Your task to perform on an android device: Go to Google maps Image 0: 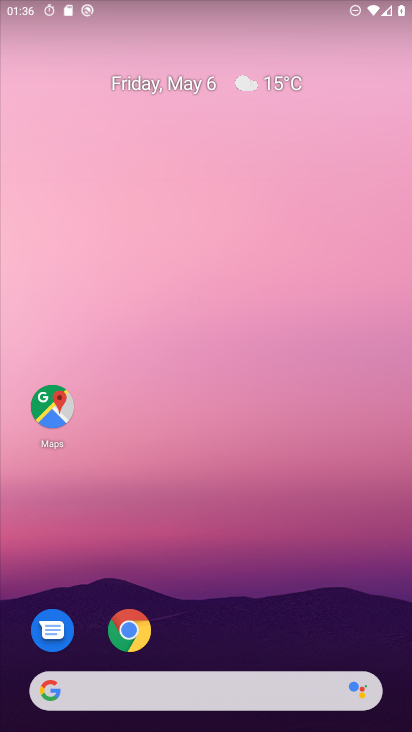
Step 0: drag from (303, 602) to (154, 123)
Your task to perform on an android device: Go to Google maps Image 1: 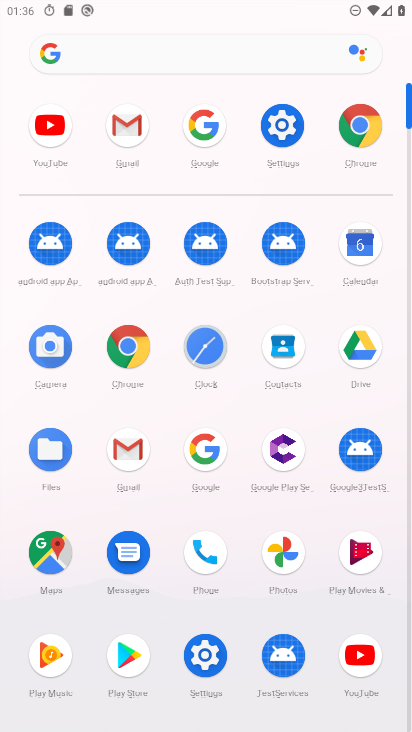
Step 1: click (48, 562)
Your task to perform on an android device: Go to Google maps Image 2: 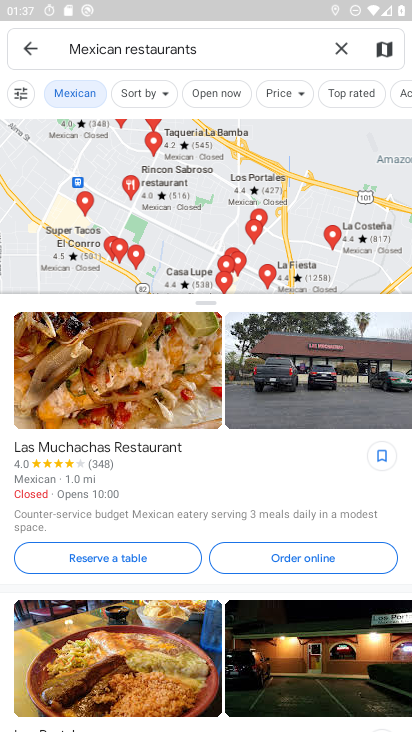
Step 2: task complete